Your task to perform on an android device: see creations saved in the google photos Image 0: 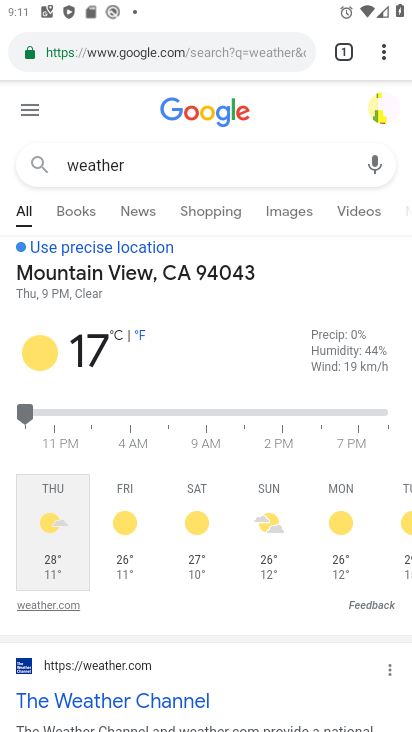
Step 0: press home button
Your task to perform on an android device: see creations saved in the google photos Image 1: 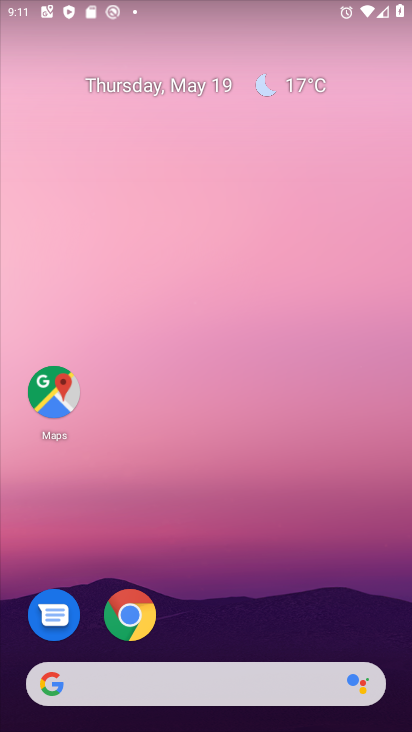
Step 1: drag from (202, 618) to (210, 63)
Your task to perform on an android device: see creations saved in the google photos Image 2: 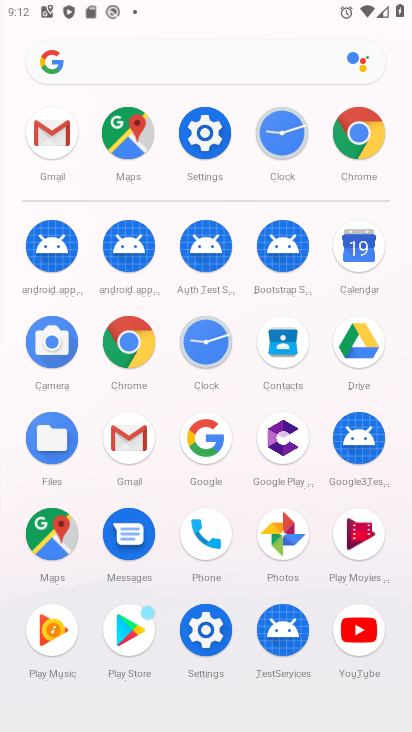
Step 2: click (295, 539)
Your task to perform on an android device: see creations saved in the google photos Image 3: 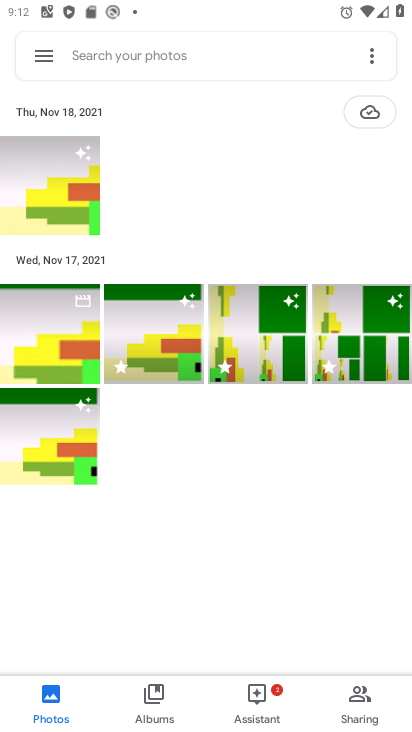
Step 3: click (138, 57)
Your task to perform on an android device: see creations saved in the google photos Image 4: 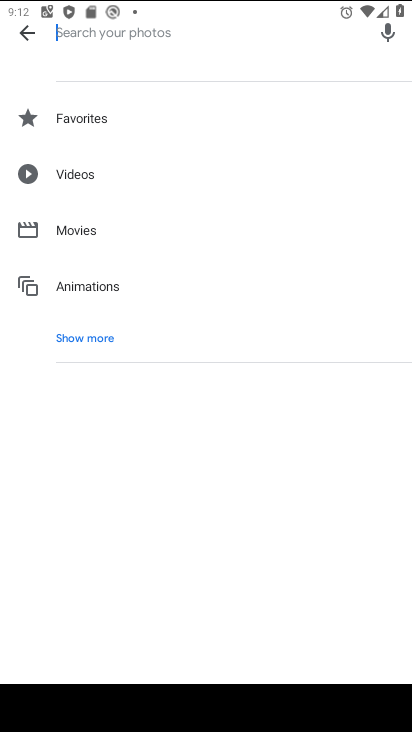
Step 4: click (54, 344)
Your task to perform on an android device: see creations saved in the google photos Image 5: 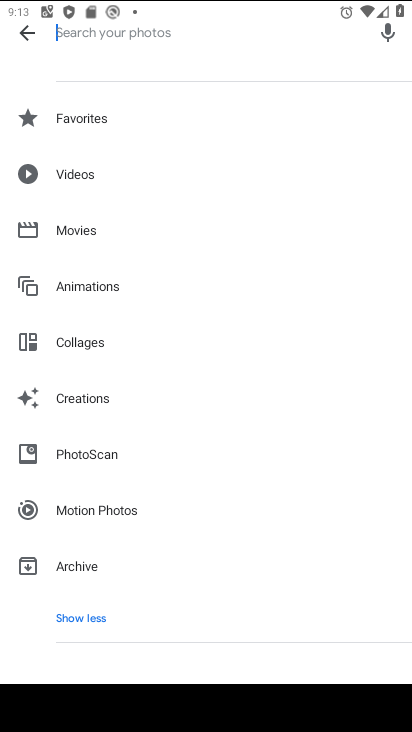
Step 5: click (101, 401)
Your task to perform on an android device: see creations saved in the google photos Image 6: 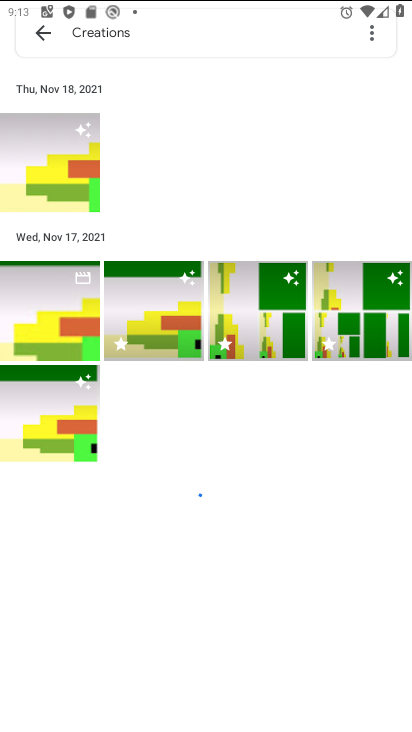
Step 6: task complete